Your task to perform on an android device: move a message to another label in the gmail app Image 0: 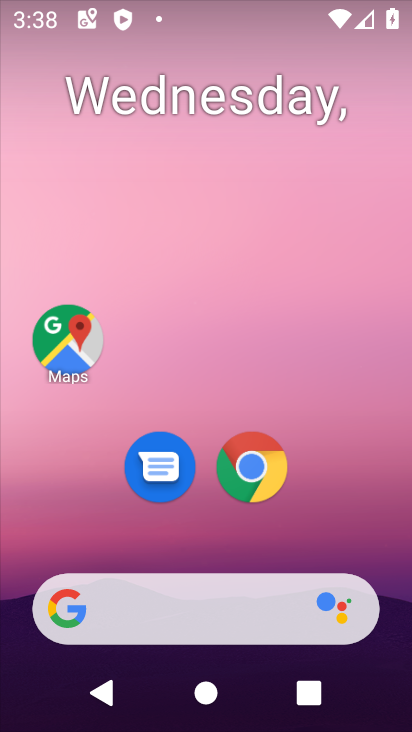
Step 0: drag from (384, 567) to (323, 138)
Your task to perform on an android device: move a message to another label in the gmail app Image 1: 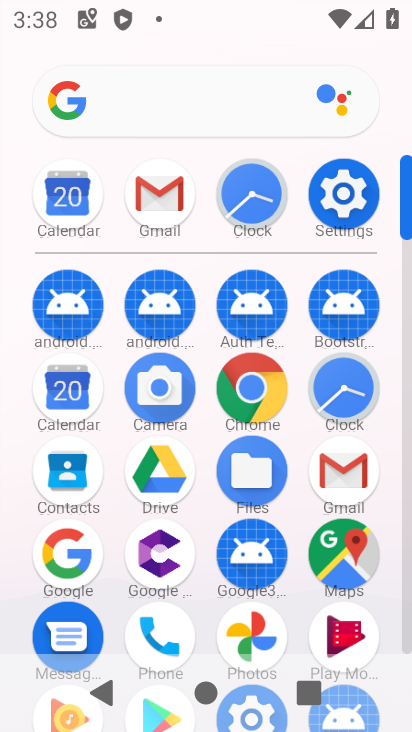
Step 1: click (404, 640)
Your task to perform on an android device: move a message to another label in the gmail app Image 2: 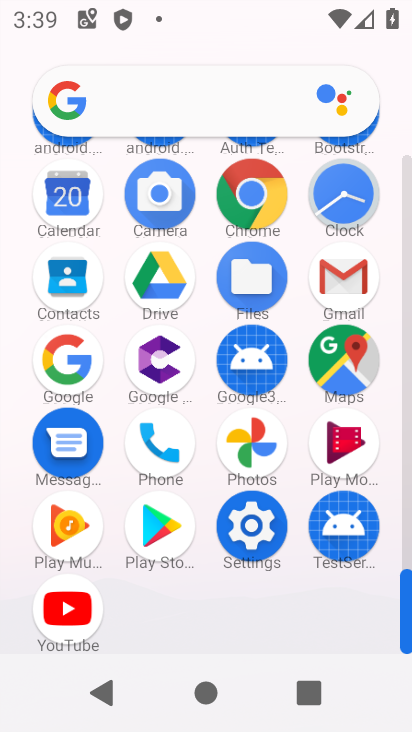
Step 2: click (340, 276)
Your task to perform on an android device: move a message to another label in the gmail app Image 3: 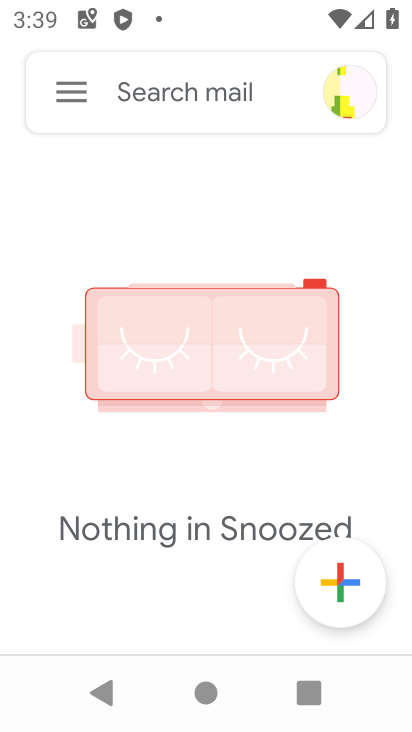
Step 3: click (61, 92)
Your task to perform on an android device: move a message to another label in the gmail app Image 4: 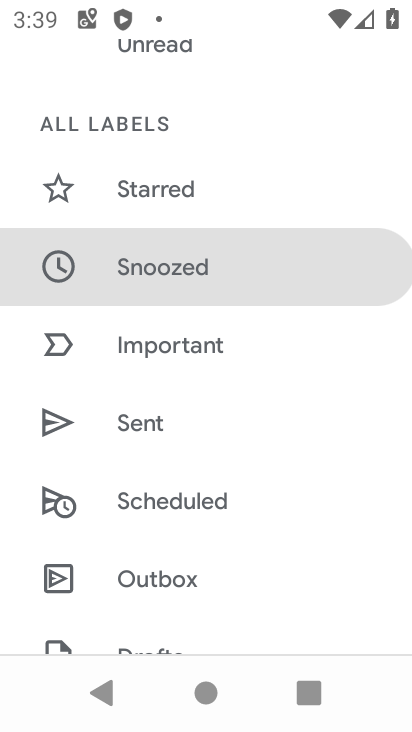
Step 4: drag from (236, 568) to (284, 261)
Your task to perform on an android device: move a message to another label in the gmail app Image 5: 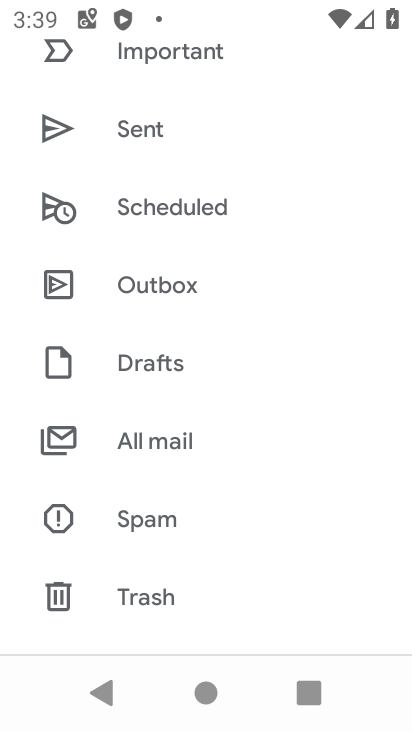
Step 5: click (139, 437)
Your task to perform on an android device: move a message to another label in the gmail app Image 6: 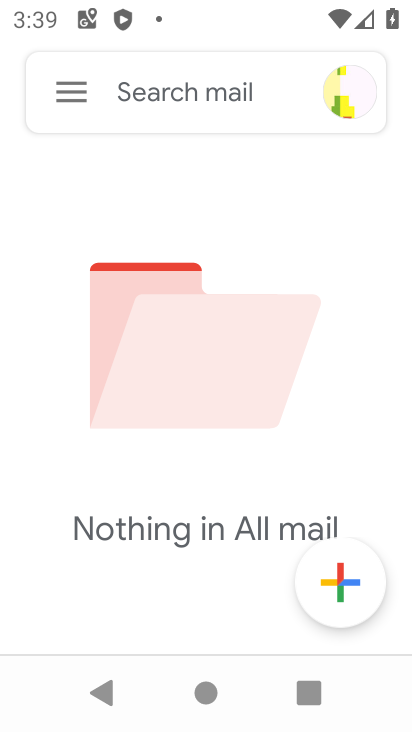
Step 6: task complete